Your task to perform on an android device: delete browsing data in the chrome app Image 0: 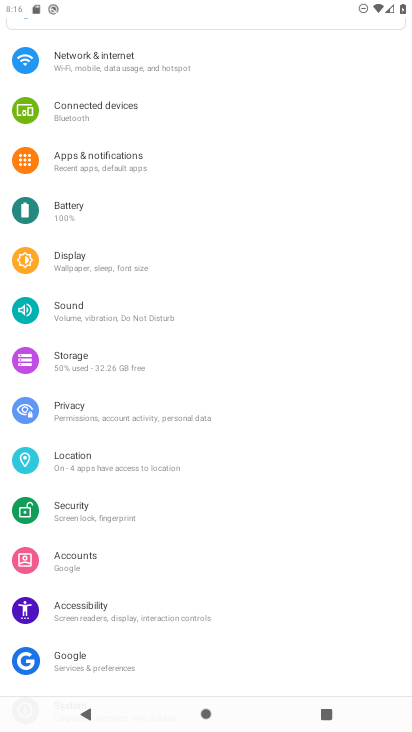
Step 0: press home button
Your task to perform on an android device: delete browsing data in the chrome app Image 1: 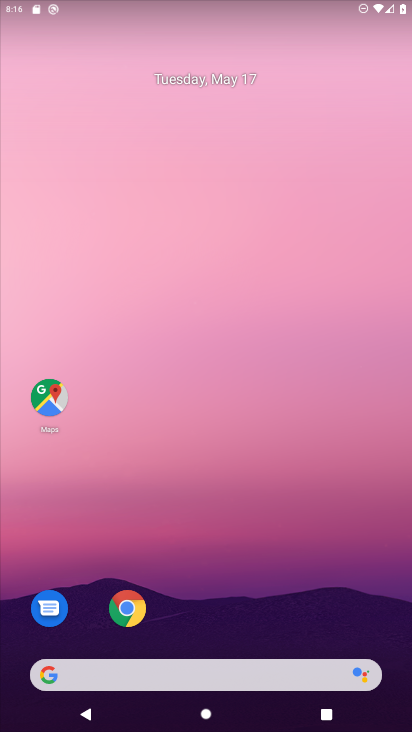
Step 1: click (136, 599)
Your task to perform on an android device: delete browsing data in the chrome app Image 2: 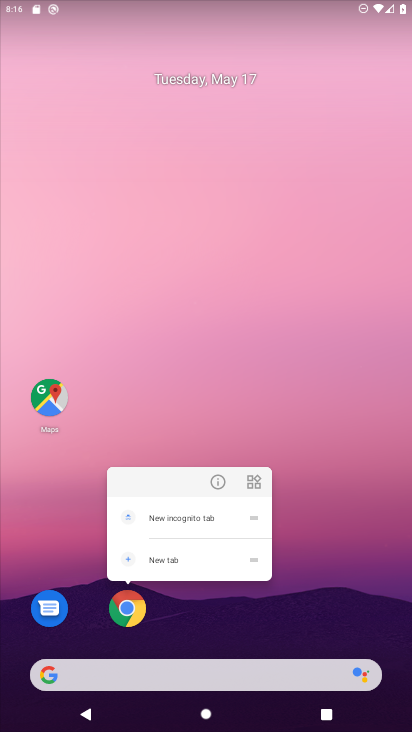
Step 2: click (136, 600)
Your task to perform on an android device: delete browsing data in the chrome app Image 3: 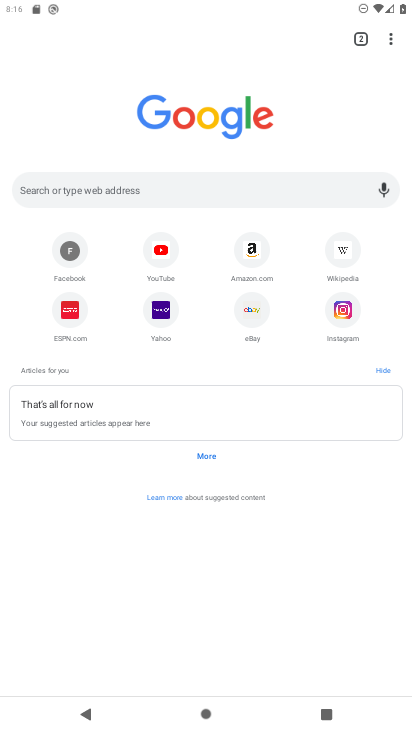
Step 3: click (392, 45)
Your task to perform on an android device: delete browsing data in the chrome app Image 4: 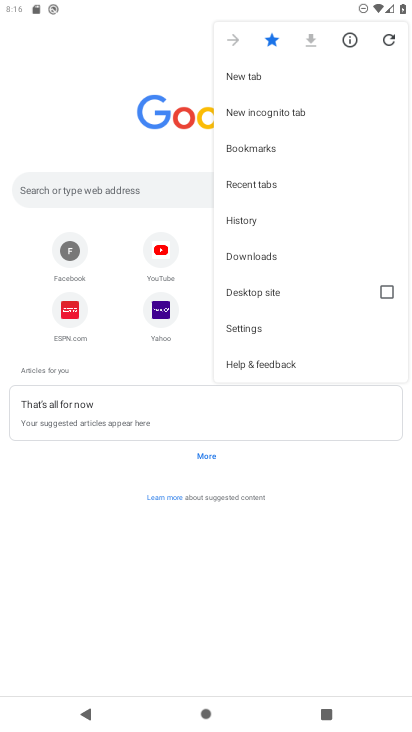
Step 4: click (245, 221)
Your task to perform on an android device: delete browsing data in the chrome app Image 5: 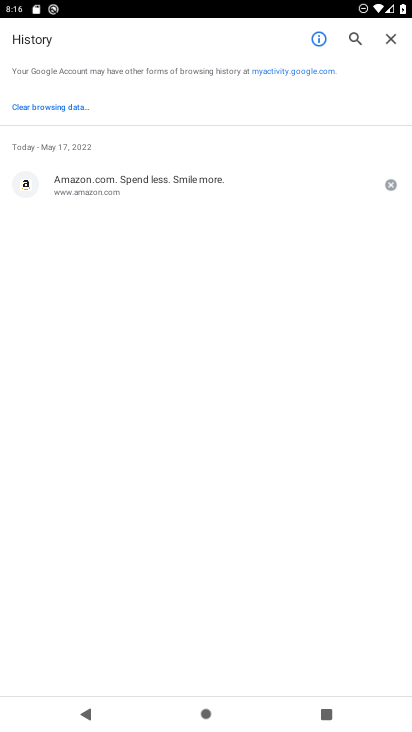
Step 5: click (41, 109)
Your task to perform on an android device: delete browsing data in the chrome app Image 6: 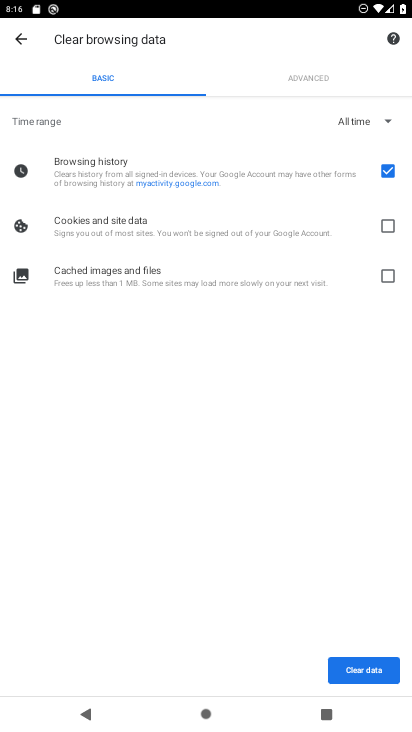
Step 6: click (387, 223)
Your task to perform on an android device: delete browsing data in the chrome app Image 7: 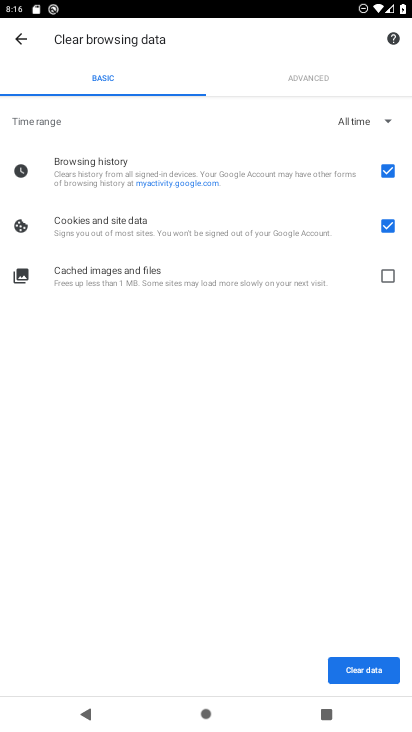
Step 7: click (387, 275)
Your task to perform on an android device: delete browsing data in the chrome app Image 8: 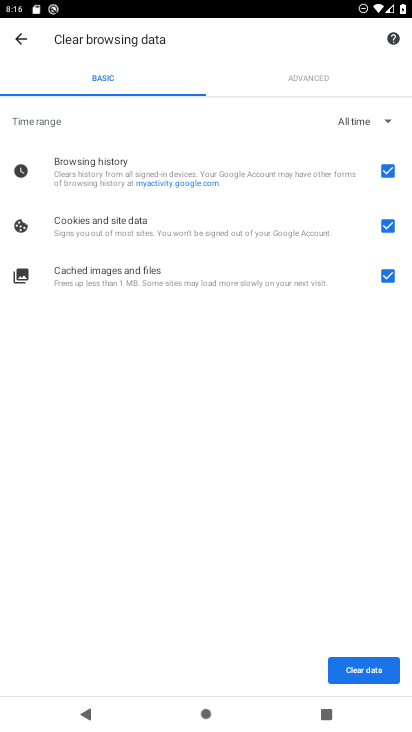
Step 8: click (360, 670)
Your task to perform on an android device: delete browsing data in the chrome app Image 9: 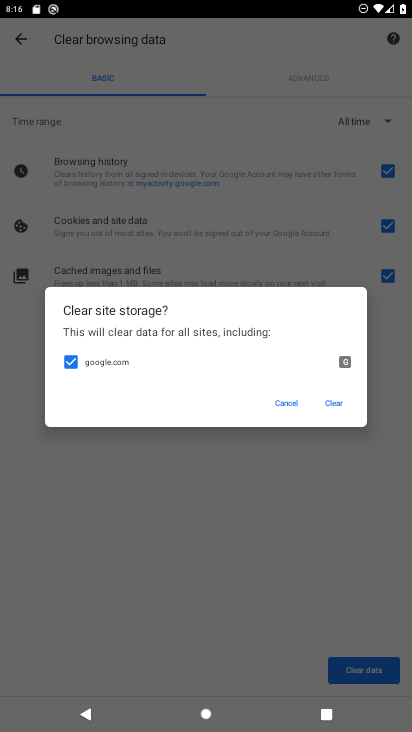
Step 9: click (337, 400)
Your task to perform on an android device: delete browsing data in the chrome app Image 10: 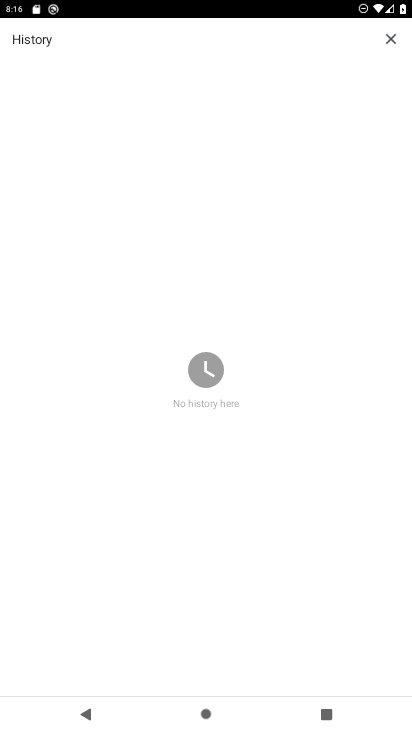
Step 10: task complete